Your task to perform on an android device: Open the Play Movies app and select the watchlist tab. Image 0: 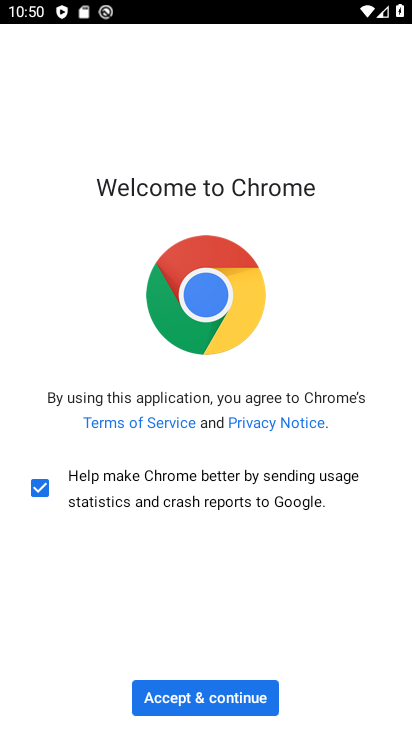
Step 0: click (202, 707)
Your task to perform on an android device: Open the Play Movies app and select the watchlist tab. Image 1: 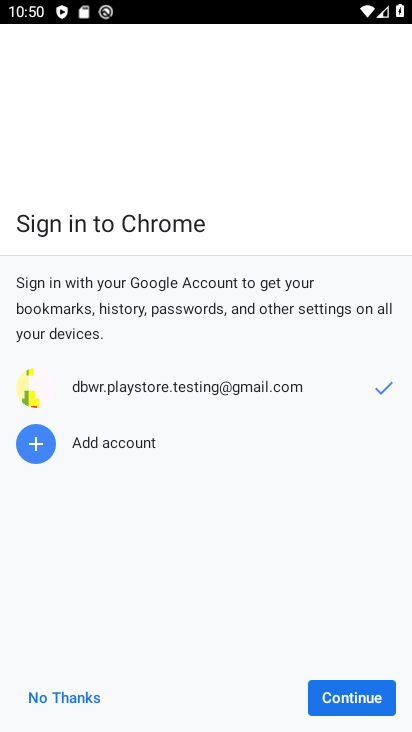
Step 1: click (360, 688)
Your task to perform on an android device: Open the Play Movies app and select the watchlist tab. Image 2: 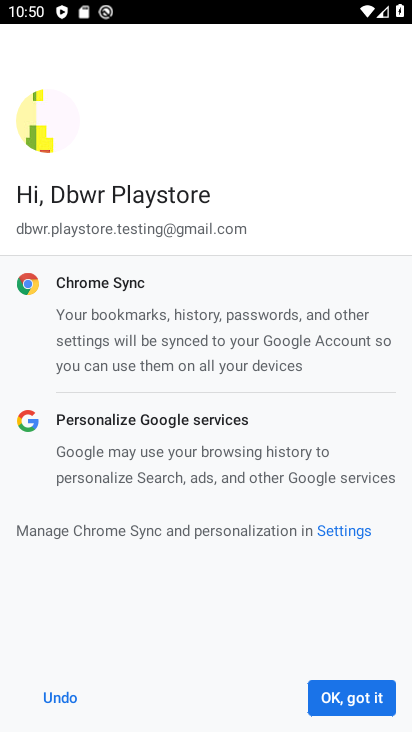
Step 2: click (360, 688)
Your task to perform on an android device: Open the Play Movies app and select the watchlist tab. Image 3: 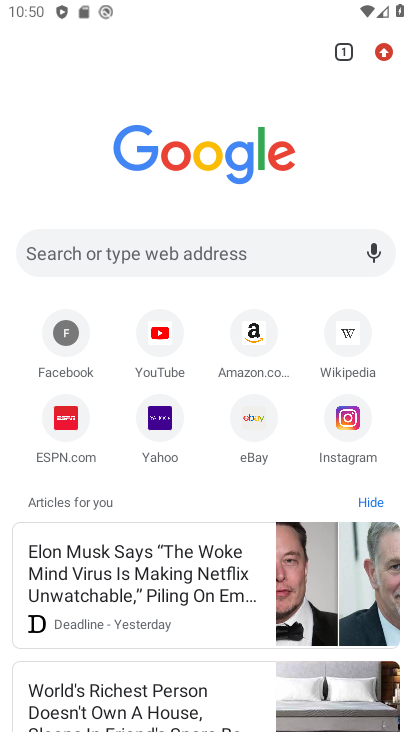
Step 3: press home button
Your task to perform on an android device: Open the Play Movies app and select the watchlist tab. Image 4: 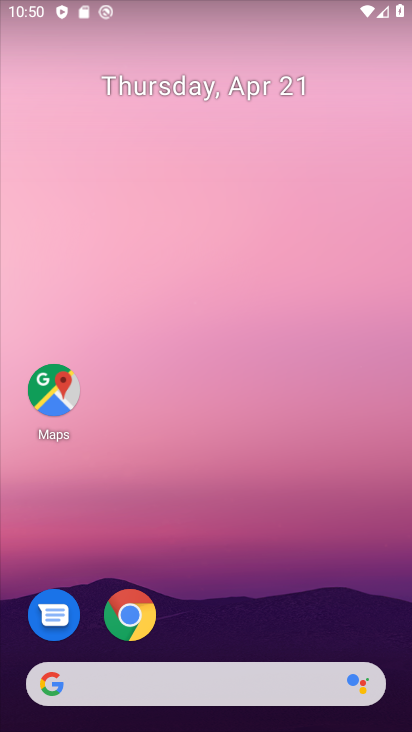
Step 4: drag from (272, 715) to (138, 51)
Your task to perform on an android device: Open the Play Movies app and select the watchlist tab. Image 5: 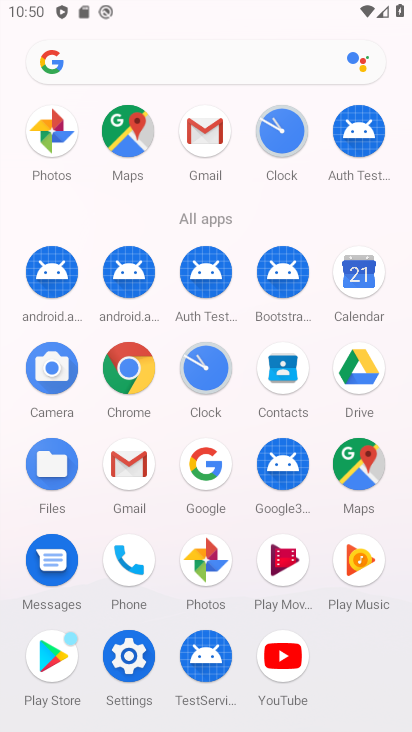
Step 5: click (278, 548)
Your task to perform on an android device: Open the Play Movies app and select the watchlist tab. Image 6: 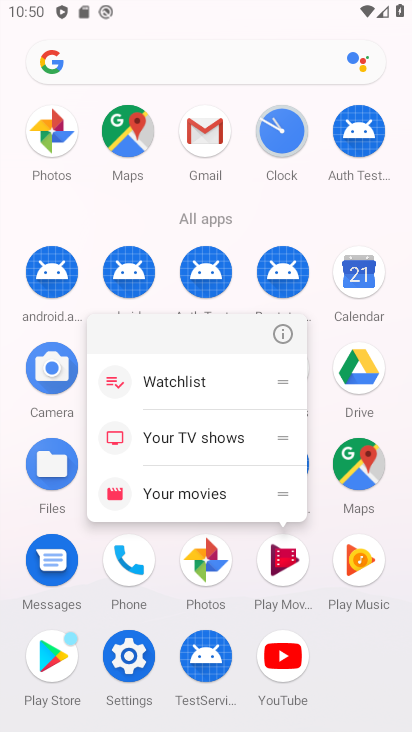
Step 6: click (278, 548)
Your task to perform on an android device: Open the Play Movies app and select the watchlist tab. Image 7: 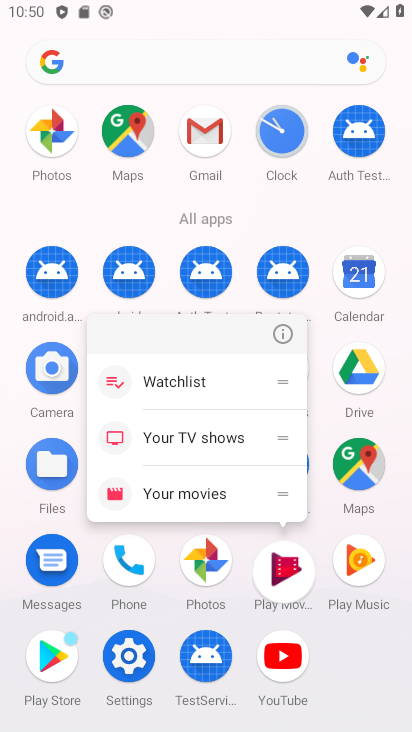
Step 7: click (279, 560)
Your task to perform on an android device: Open the Play Movies app and select the watchlist tab. Image 8: 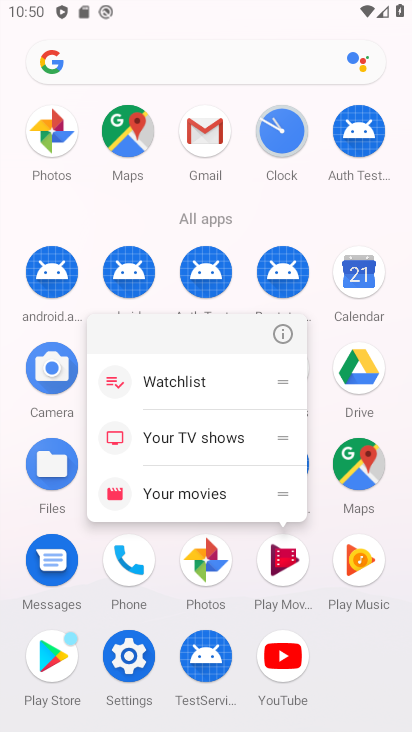
Step 8: click (280, 542)
Your task to perform on an android device: Open the Play Movies app and select the watchlist tab. Image 9: 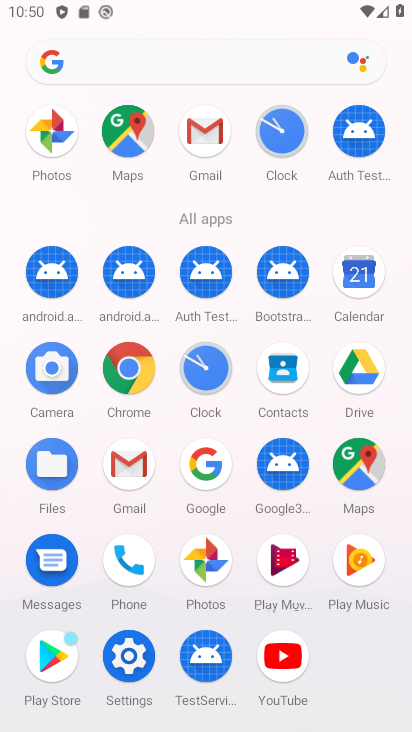
Step 9: click (282, 556)
Your task to perform on an android device: Open the Play Movies app and select the watchlist tab. Image 10: 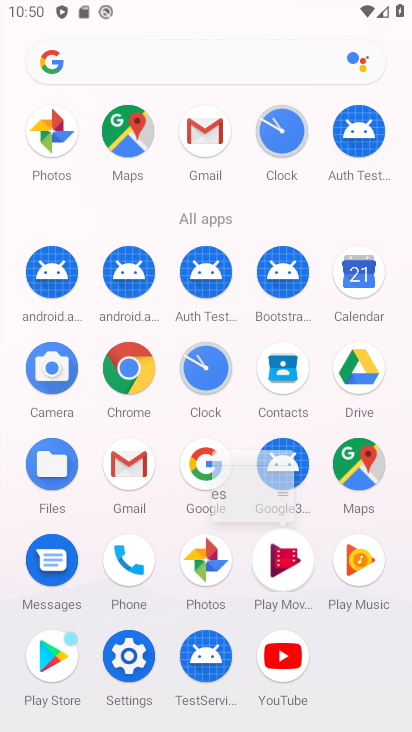
Step 10: click (276, 554)
Your task to perform on an android device: Open the Play Movies app and select the watchlist tab. Image 11: 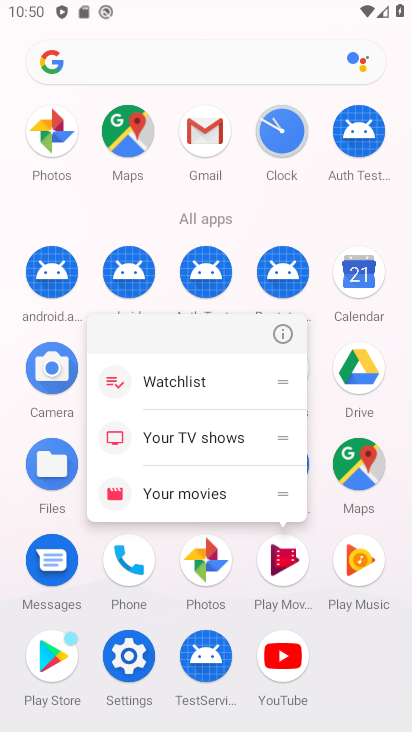
Step 11: click (279, 550)
Your task to perform on an android device: Open the Play Movies app and select the watchlist tab. Image 12: 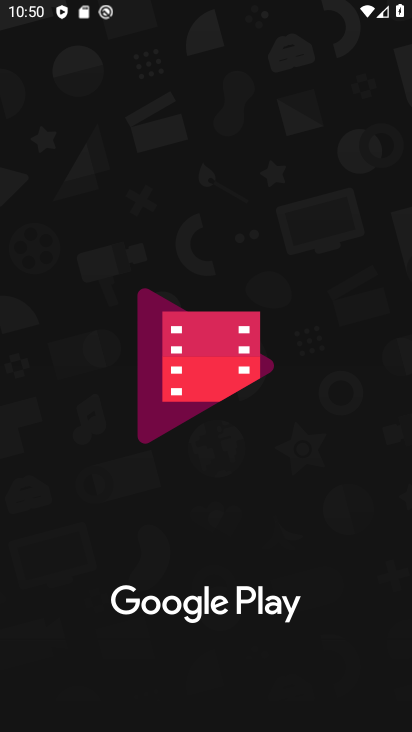
Step 12: click (280, 542)
Your task to perform on an android device: Open the Play Movies app and select the watchlist tab. Image 13: 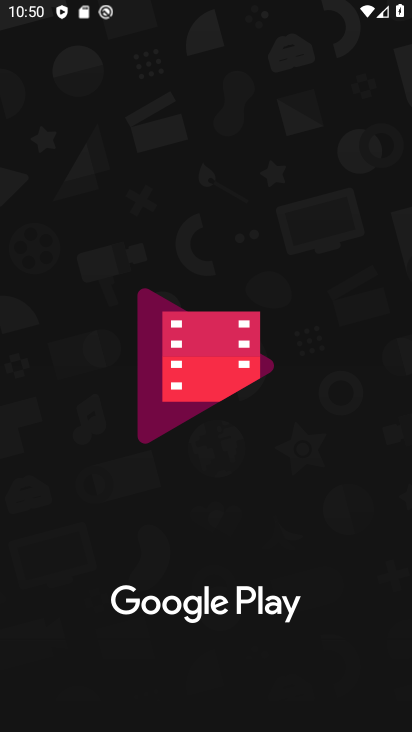
Step 13: drag from (282, 414) to (304, 195)
Your task to perform on an android device: Open the Play Movies app and select the watchlist tab. Image 14: 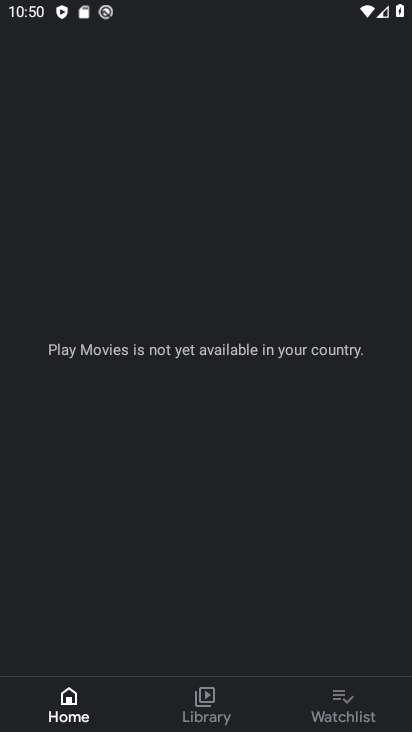
Step 14: click (344, 706)
Your task to perform on an android device: Open the Play Movies app and select the watchlist tab. Image 15: 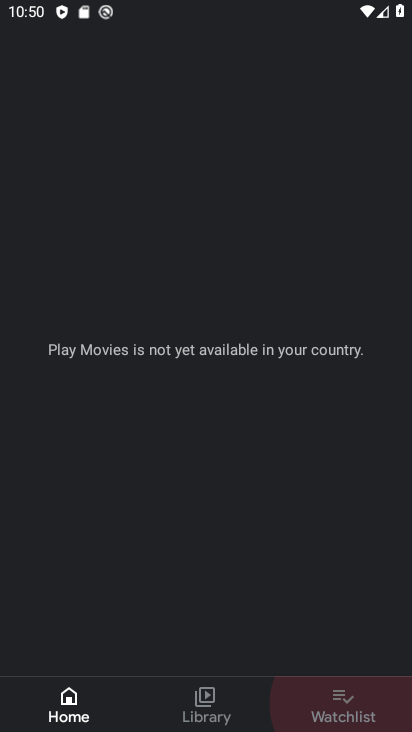
Step 15: click (344, 706)
Your task to perform on an android device: Open the Play Movies app and select the watchlist tab. Image 16: 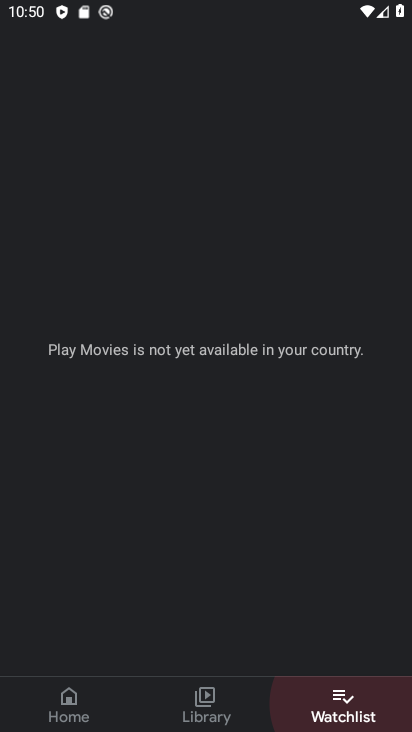
Step 16: click (344, 706)
Your task to perform on an android device: Open the Play Movies app and select the watchlist tab. Image 17: 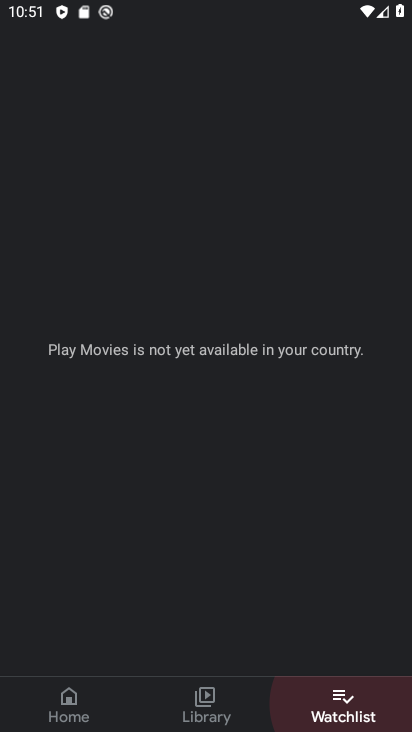
Step 17: click (355, 661)
Your task to perform on an android device: Open the Play Movies app and select the watchlist tab. Image 18: 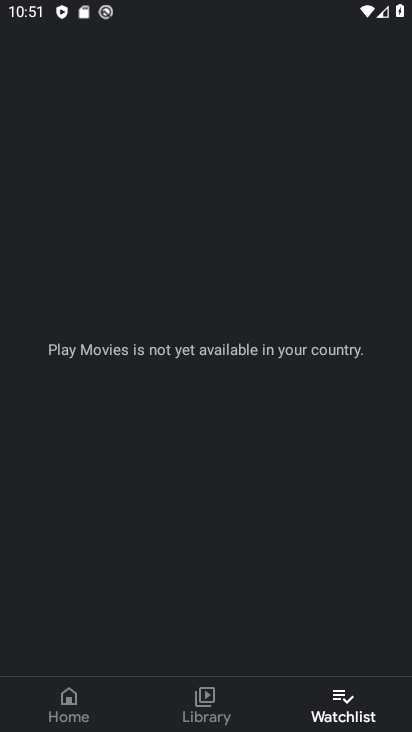
Step 18: click (339, 704)
Your task to perform on an android device: Open the Play Movies app and select the watchlist tab. Image 19: 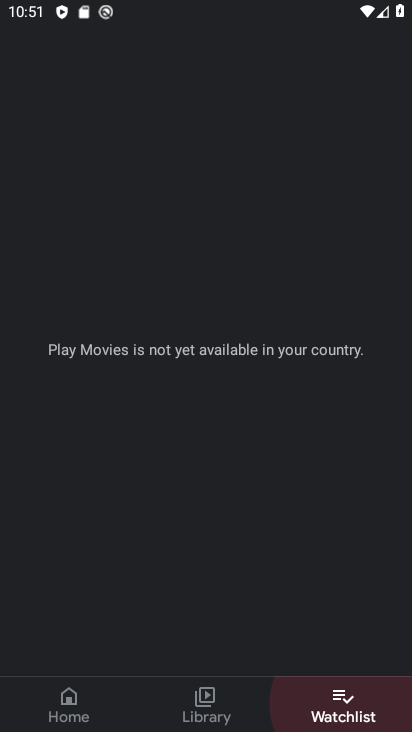
Step 19: click (348, 656)
Your task to perform on an android device: Open the Play Movies app and select the watchlist tab. Image 20: 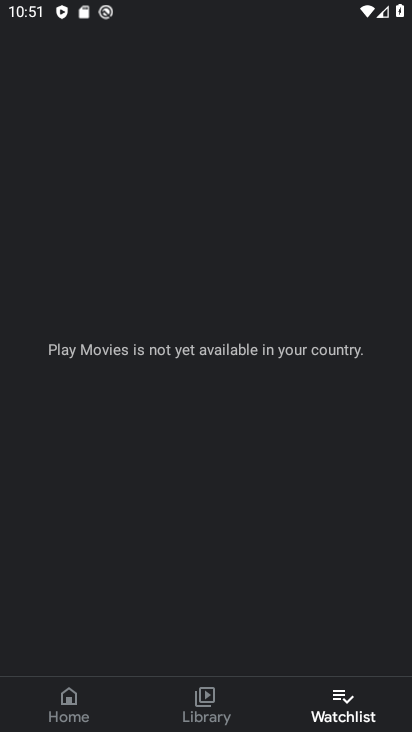
Step 20: task complete